Your task to perform on an android device: show emergency info Image 0: 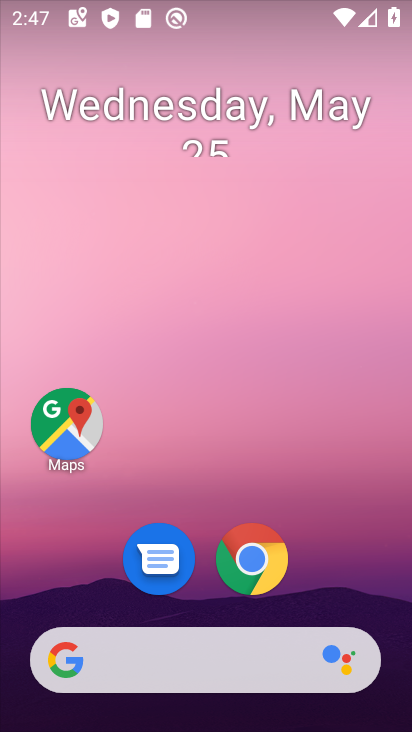
Step 0: drag from (204, 606) to (256, 48)
Your task to perform on an android device: show emergency info Image 1: 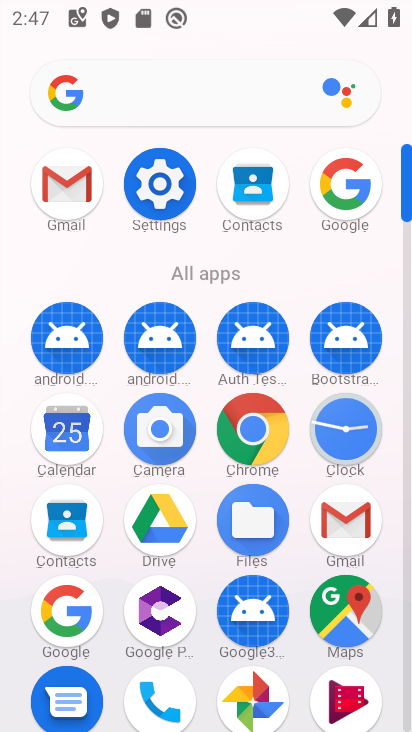
Step 1: click (157, 177)
Your task to perform on an android device: show emergency info Image 2: 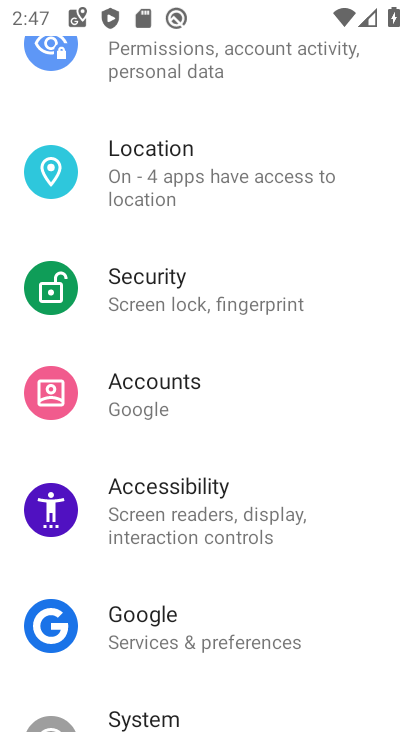
Step 2: drag from (220, 683) to (241, 102)
Your task to perform on an android device: show emergency info Image 3: 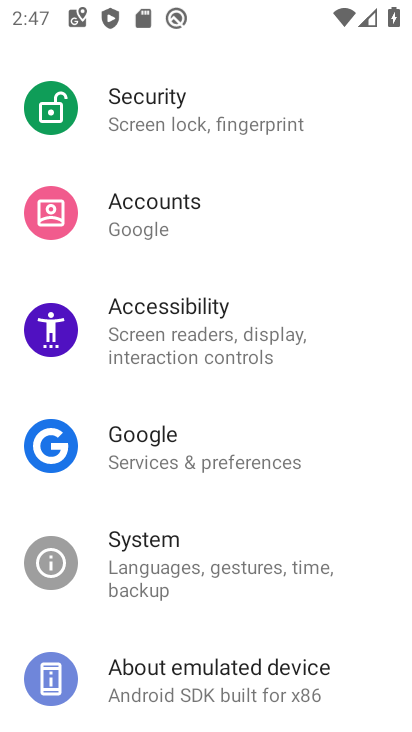
Step 3: click (337, 682)
Your task to perform on an android device: show emergency info Image 4: 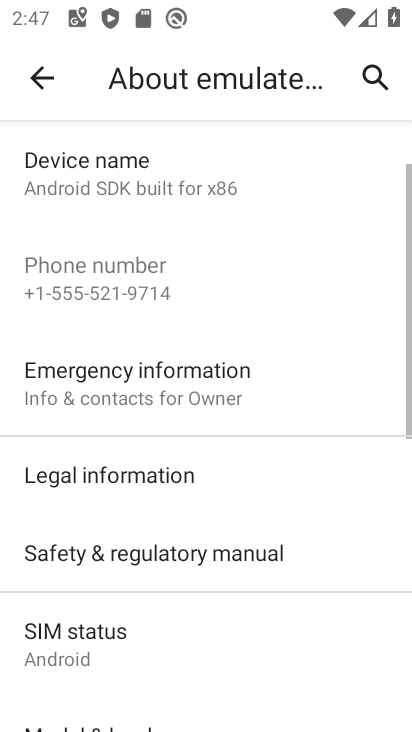
Step 4: click (247, 387)
Your task to perform on an android device: show emergency info Image 5: 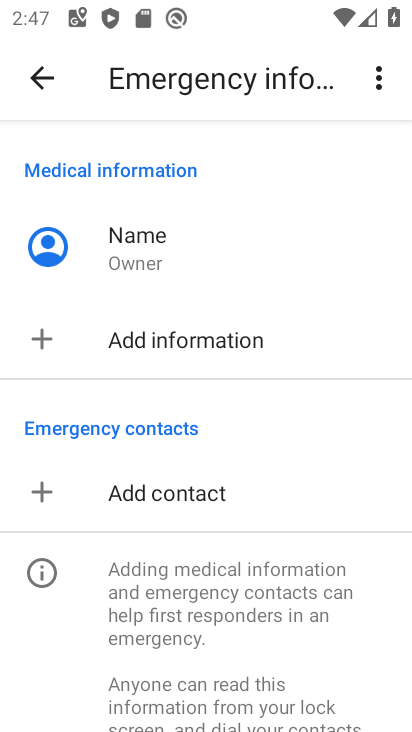
Step 5: task complete